Your task to perform on an android device: turn on showing notifications on the lock screen Image 0: 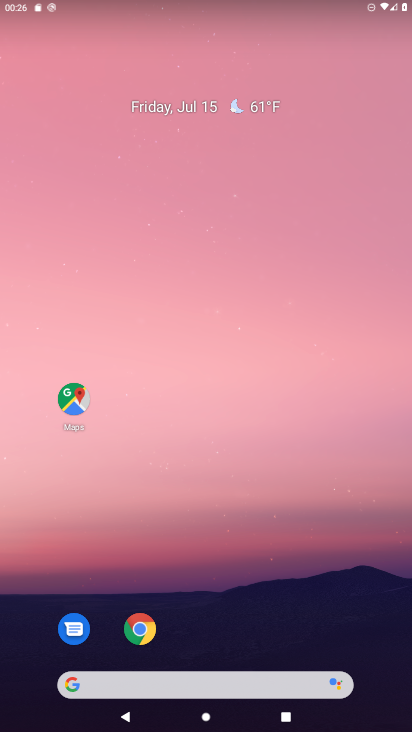
Step 0: drag from (210, 632) to (192, 209)
Your task to perform on an android device: turn on showing notifications on the lock screen Image 1: 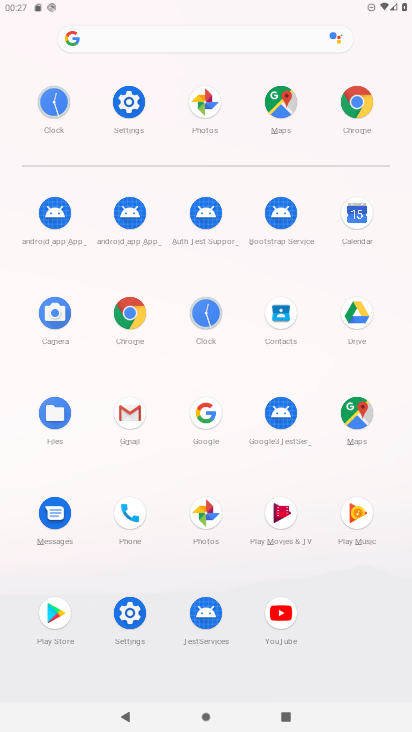
Step 1: click (135, 106)
Your task to perform on an android device: turn on showing notifications on the lock screen Image 2: 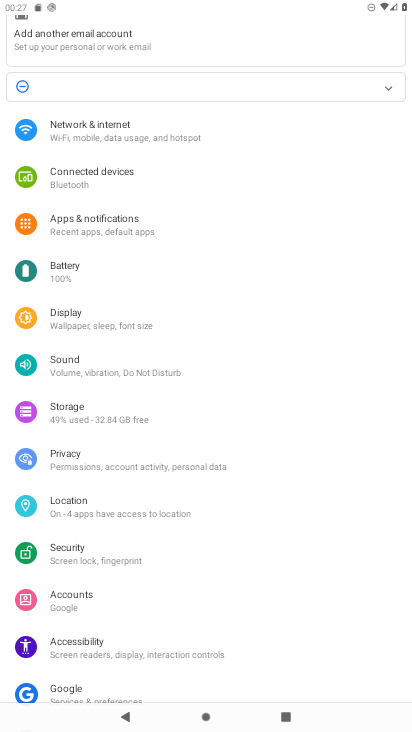
Step 2: click (185, 223)
Your task to perform on an android device: turn on showing notifications on the lock screen Image 3: 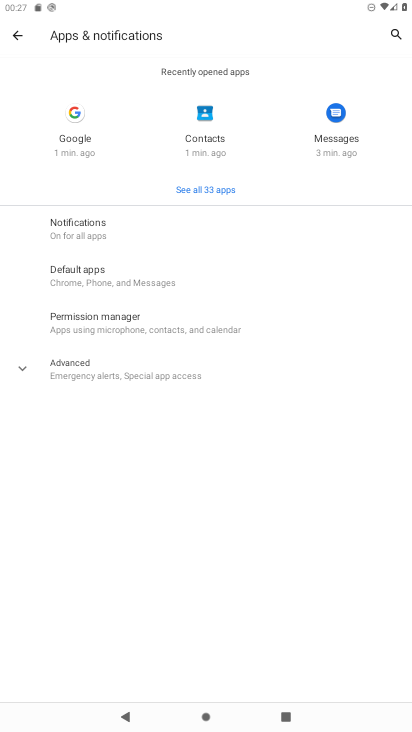
Step 3: click (155, 246)
Your task to perform on an android device: turn on showing notifications on the lock screen Image 4: 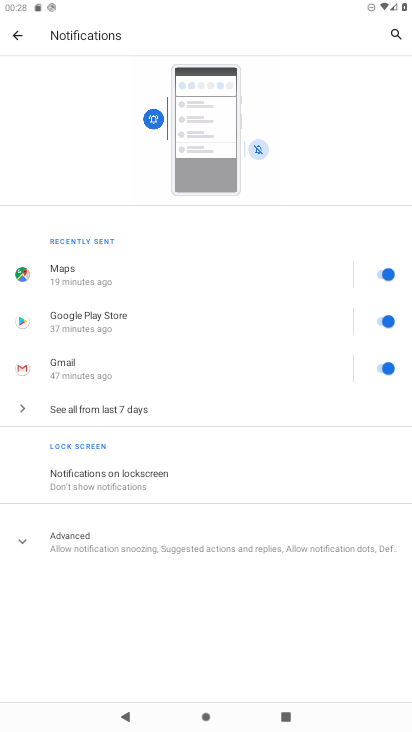
Step 4: click (153, 465)
Your task to perform on an android device: turn on showing notifications on the lock screen Image 5: 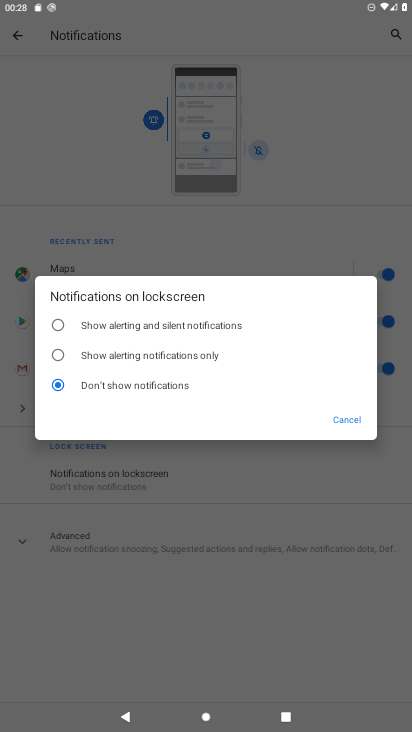
Step 5: click (138, 336)
Your task to perform on an android device: turn on showing notifications on the lock screen Image 6: 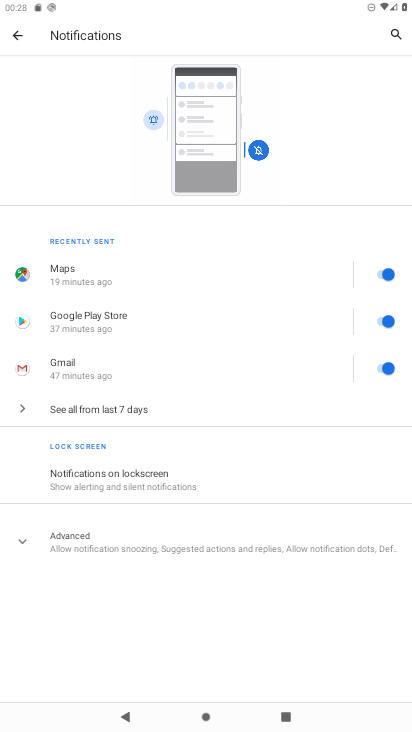
Step 6: task complete